Your task to perform on an android device: uninstall "Airtel Thanks" Image 0: 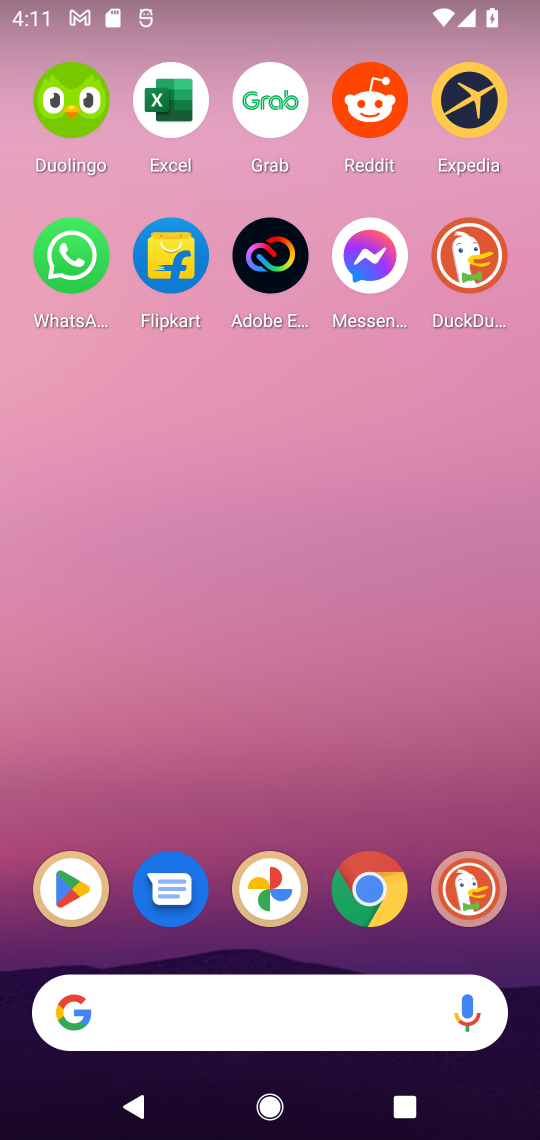
Step 0: press home button
Your task to perform on an android device: uninstall "Airtel Thanks" Image 1: 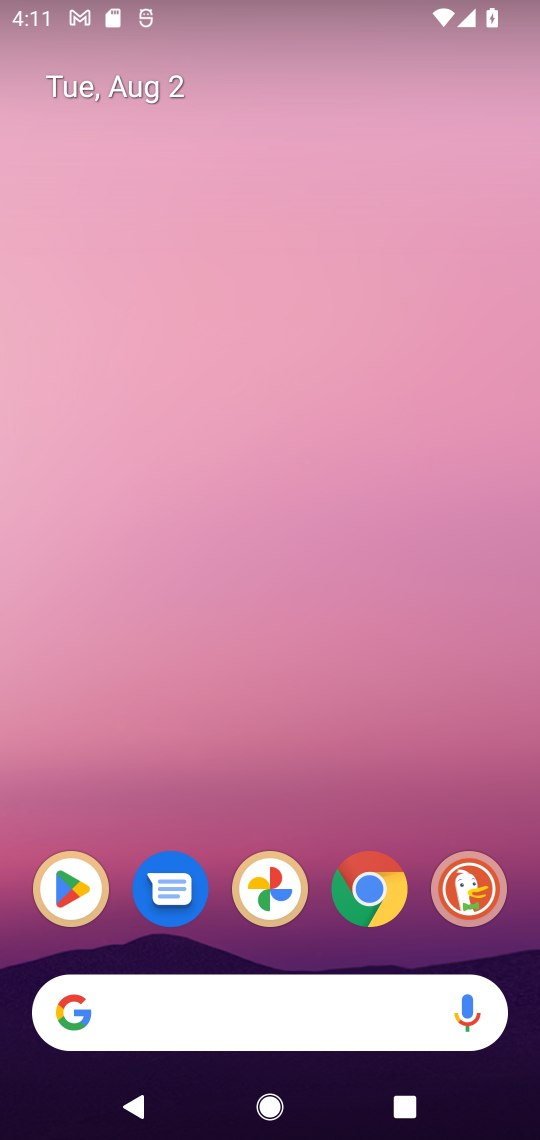
Step 1: drag from (385, 780) to (372, 48)
Your task to perform on an android device: uninstall "Airtel Thanks" Image 2: 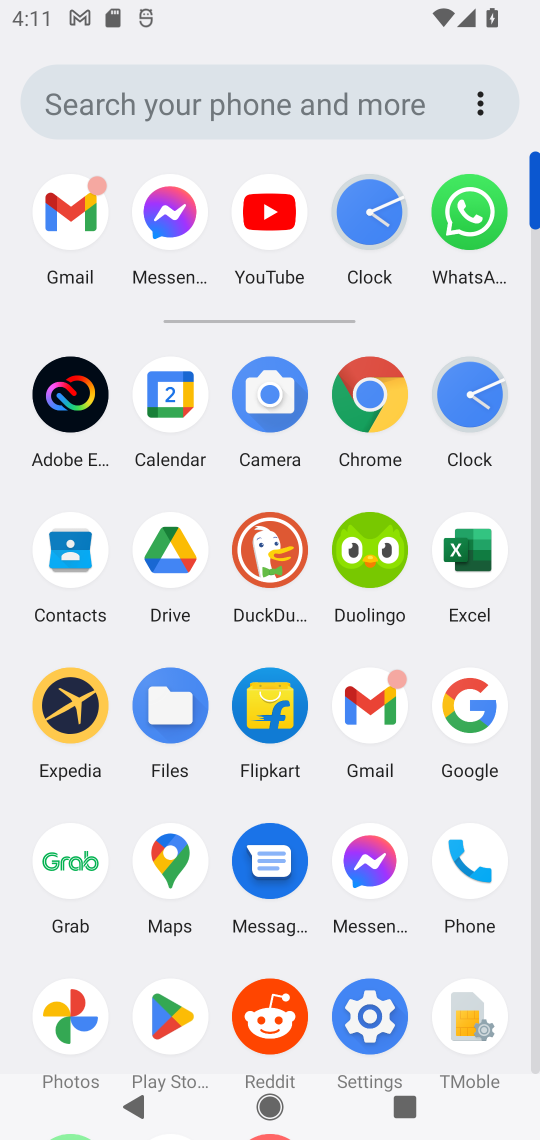
Step 2: click (167, 1018)
Your task to perform on an android device: uninstall "Airtel Thanks" Image 3: 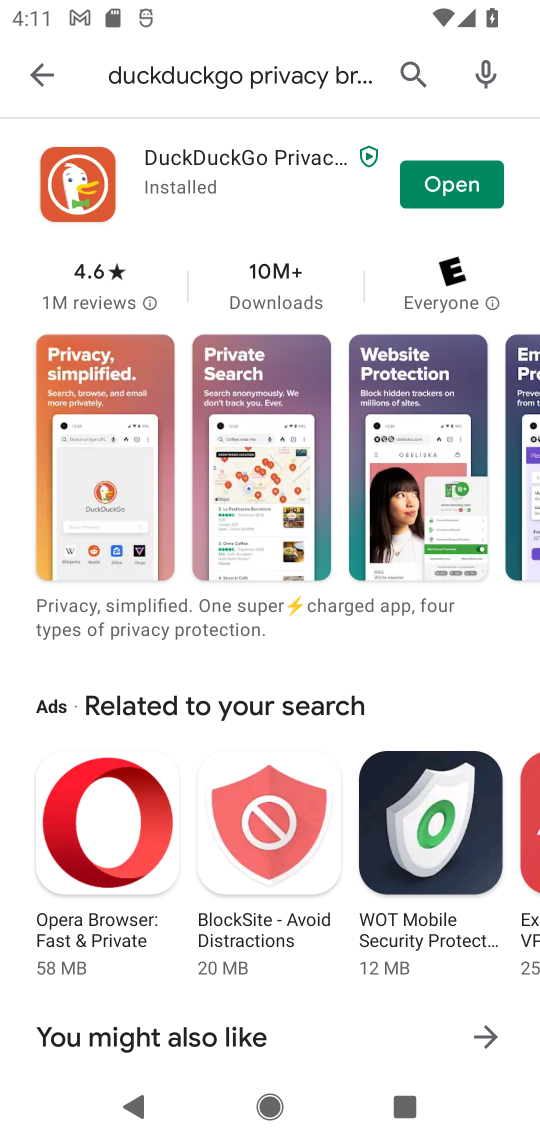
Step 3: click (406, 66)
Your task to perform on an android device: uninstall "Airtel Thanks" Image 4: 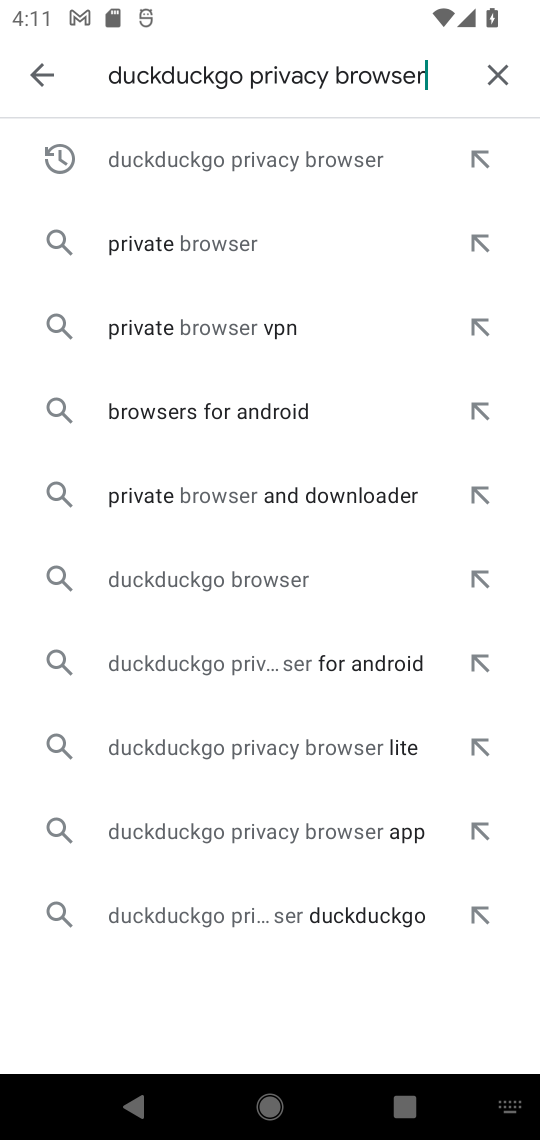
Step 4: click (500, 73)
Your task to perform on an android device: uninstall "Airtel Thanks" Image 5: 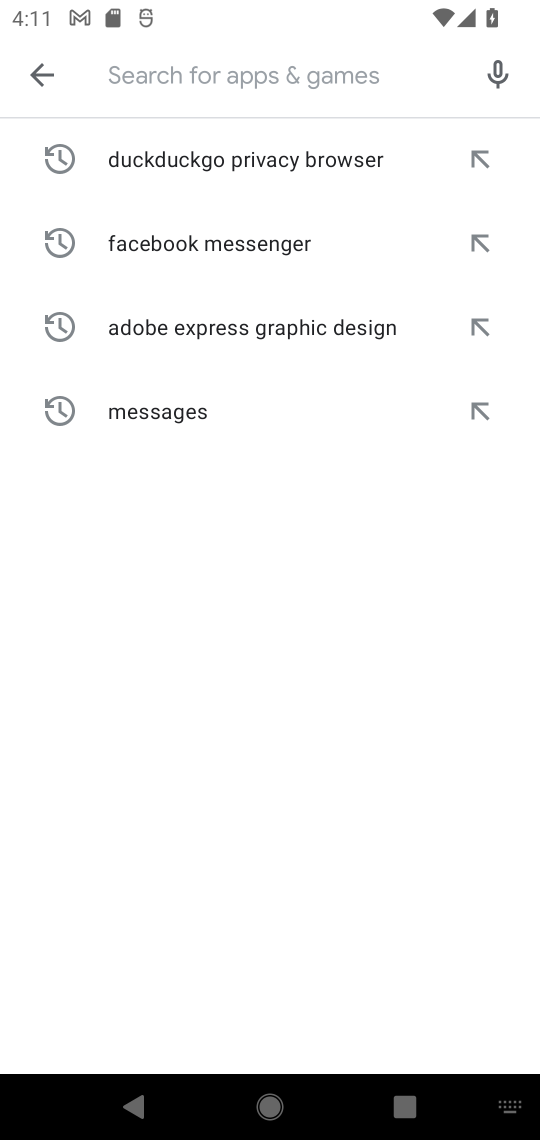
Step 5: type "airtel thanks"
Your task to perform on an android device: uninstall "Airtel Thanks" Image 6: 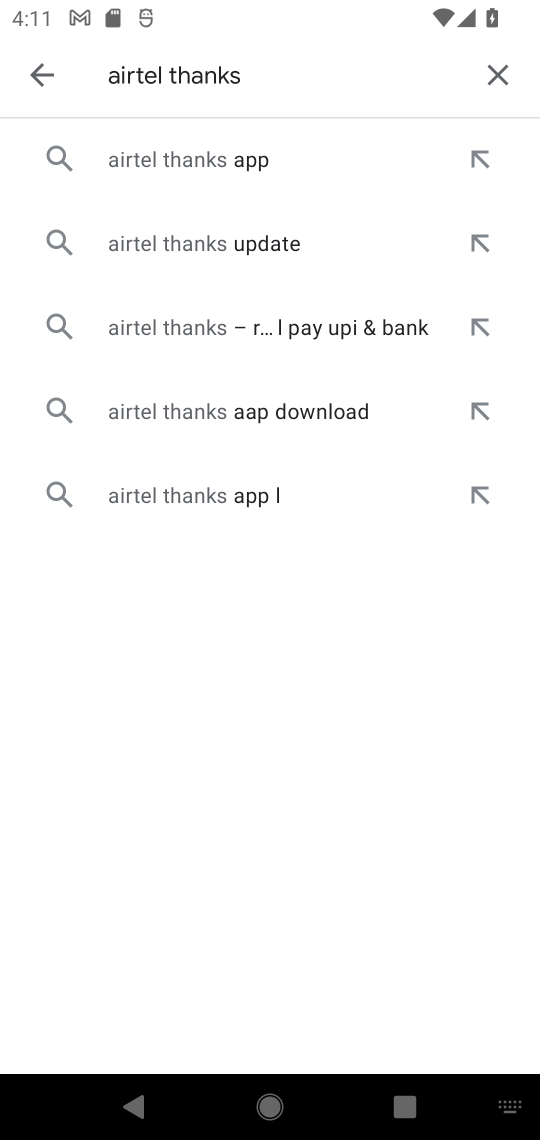
Step 6: click (226, 156)
Your task to perform on an android device: uninstall "Airtel Thanks" Image 7: 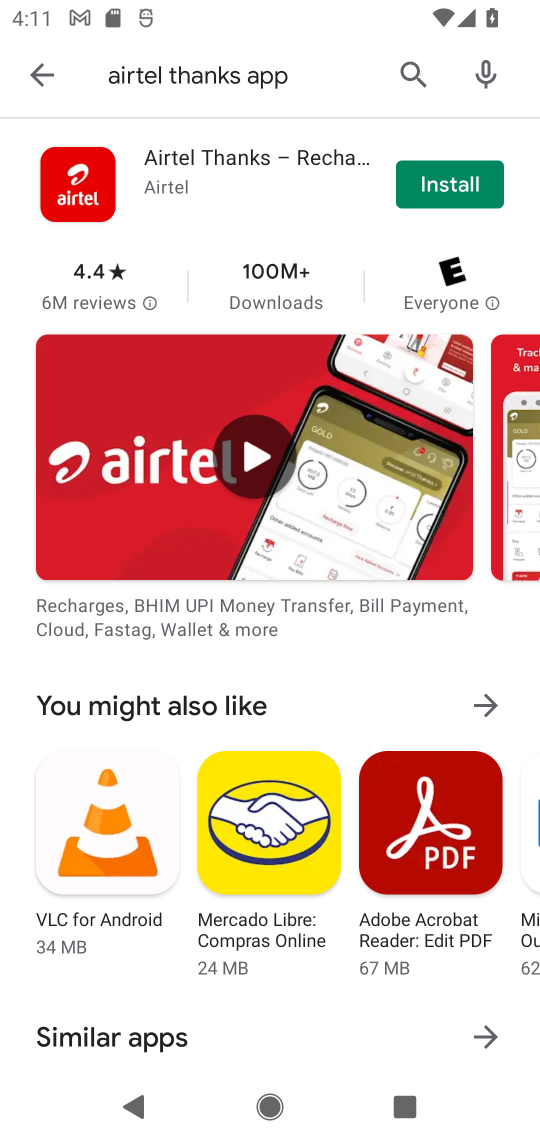
Step 7: task complete